Your task to perform on an android device: check out phone information Image 0: 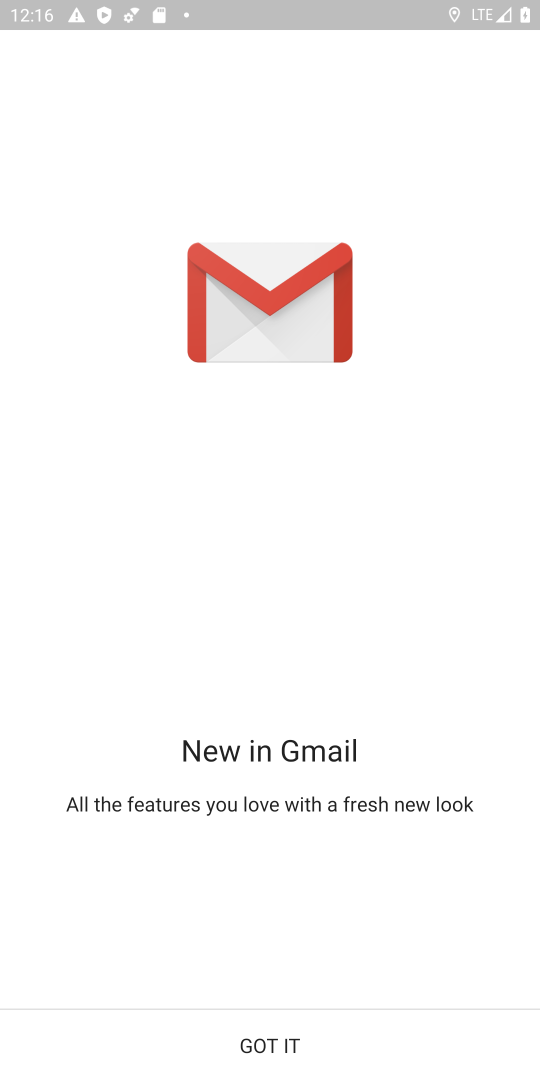
Step 0: press home button
Your task to perform on an android device: check out phone information Image 1: 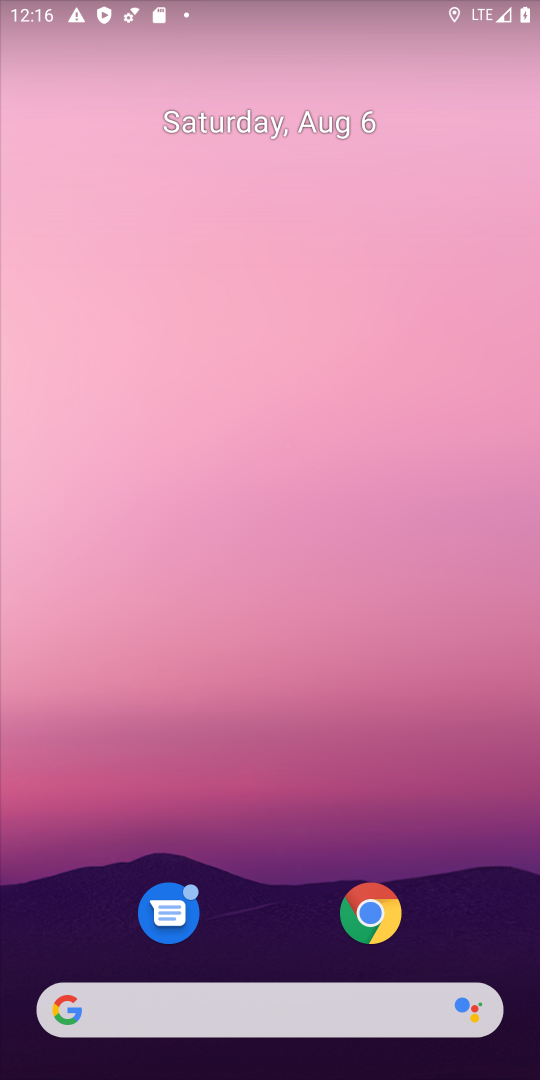
Step 1: drag from (478, 905) to (480, 411)
Your task to perform on an android device: check out phone information Image 2: 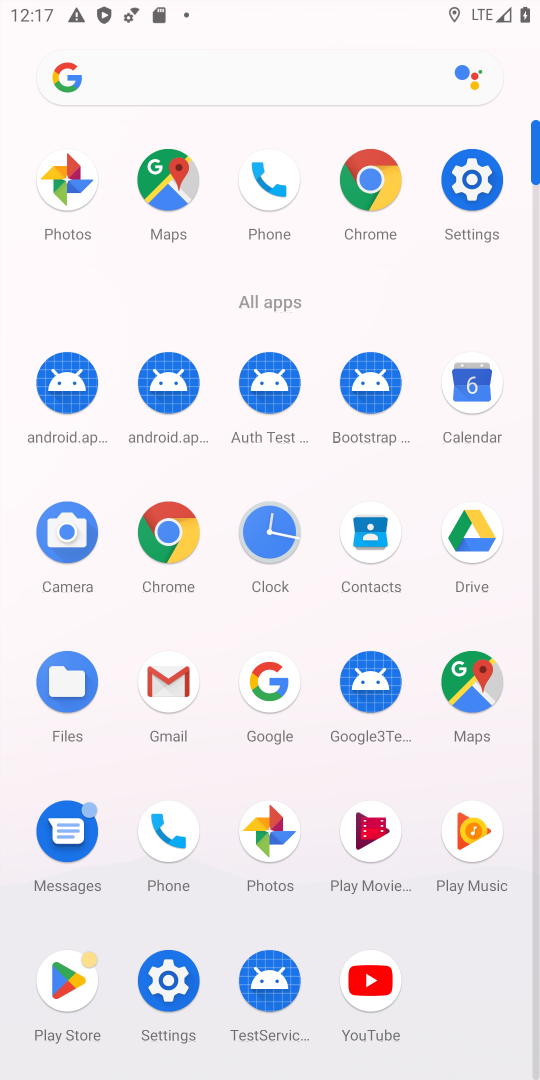
Step 2: click (168, 831)
Your task to perform on an android device: check out phone information Image 3: 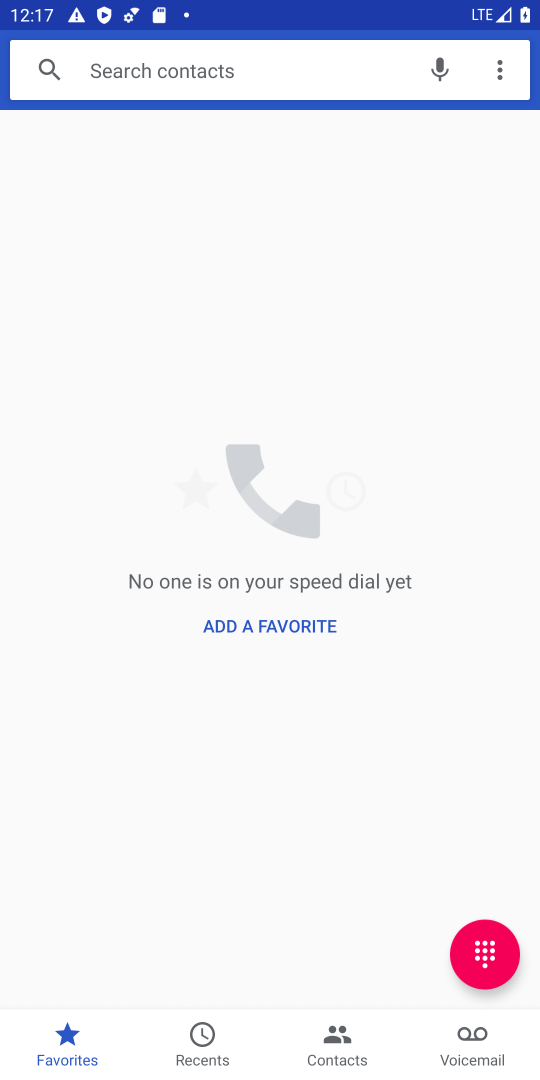
Step 3: task complete